Your task to perform on an android device: Open CNN.com Image 0: 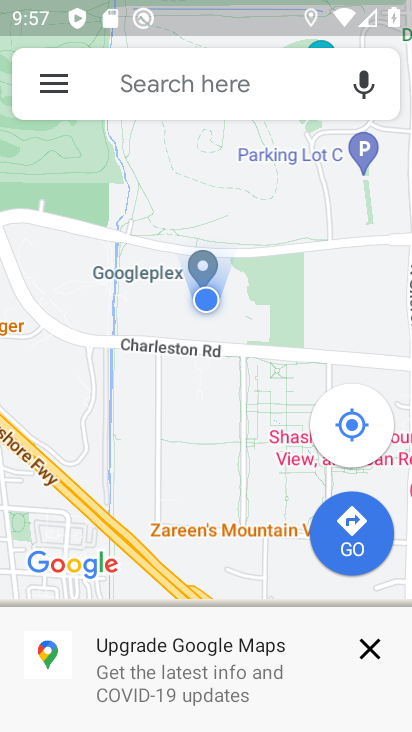
Step 0: press home button
Your task to perform on an android device: Open CNN.com Image 1: 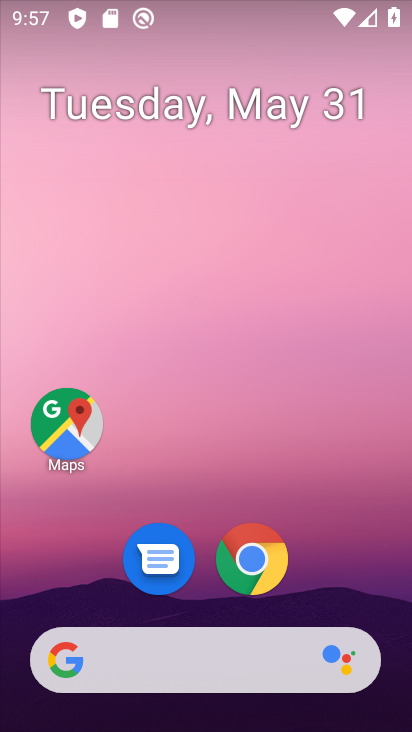
Step 1: click (262, 570)
Your task to perform on an android device: Open CNN.com Image 2: 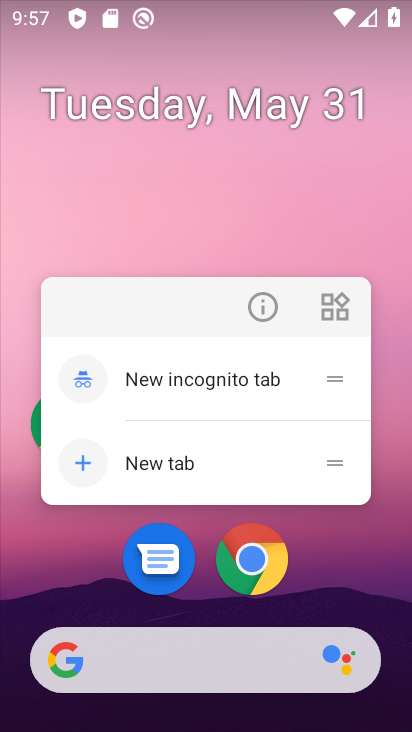
Step 2: click (250, 565)
Your task to perform on an android device: Open CNN.com Image 3: 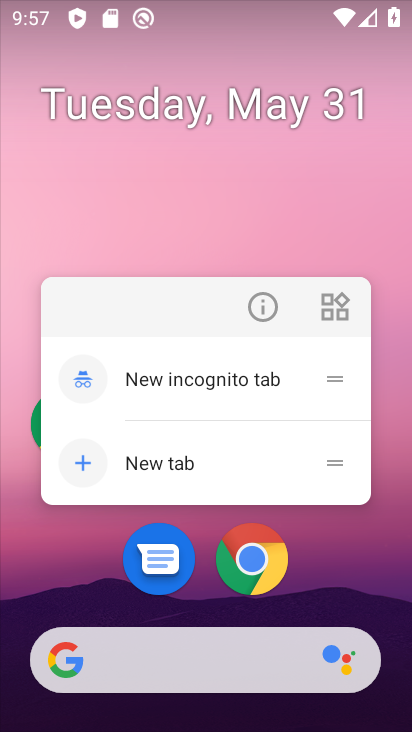
Step 3: click (263, 596)
Your task to perform on an android device: Open CNN.com Image 4: 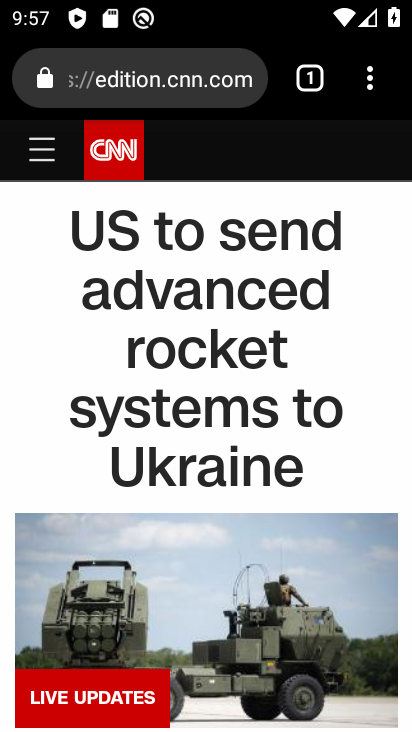
Step 4: task complete